Your task to perform on an android device: turn on data saver in the chrome app Image 0: 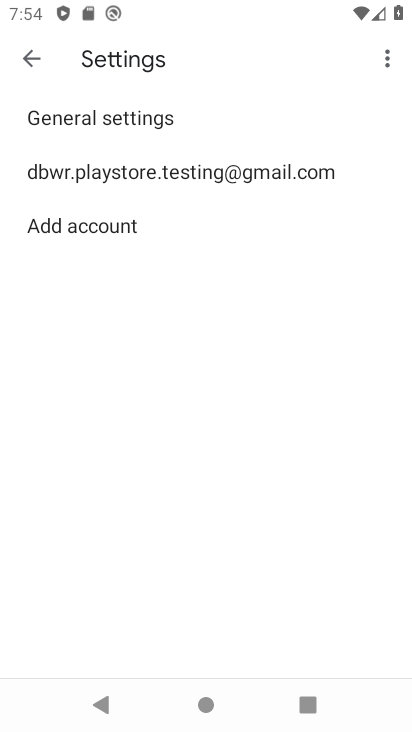
Step 0: click (30, 52)
Your task to perform on an android device: turn on data saver in the chrome app Image 1: 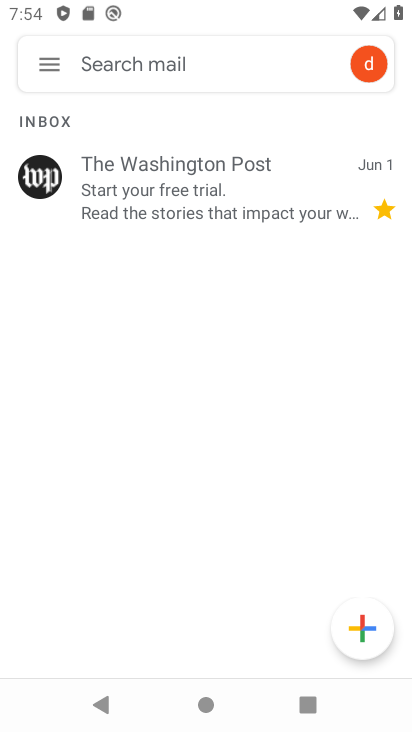
Step 1: press back button
Your task to perform on an android device: turn on data saver in the chrome app Image 2: 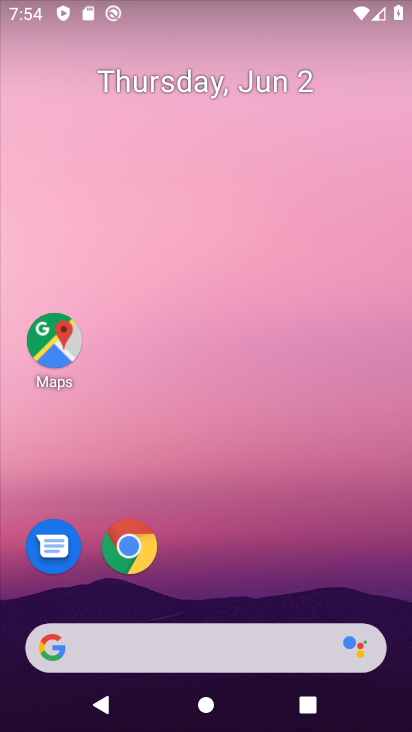
Step 2: drag from (249, 641) to (123, 199)
Your task to perform on an android device: turn on data saver in the chrome app Image 3: 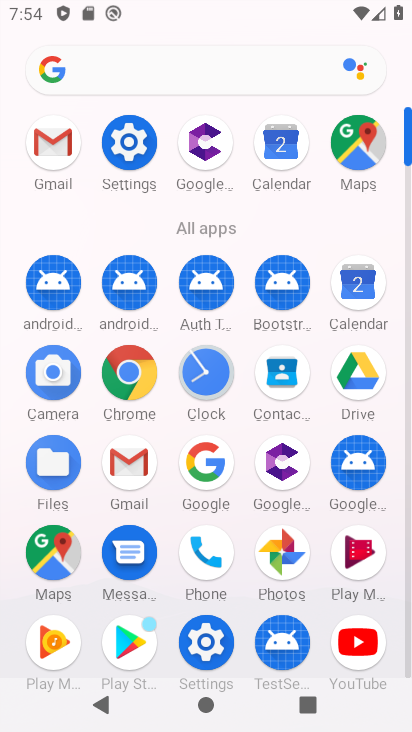
Step 3: click (134, 370)
Your task to perform on an android device: turn on data saver in the chrome app Image 4: 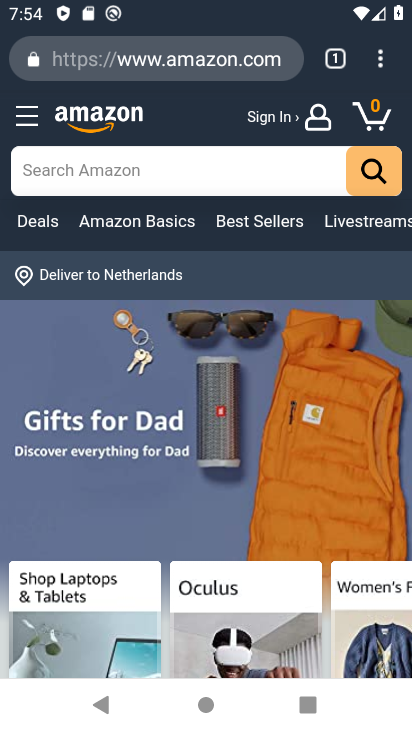
Step 4: drag from (379, 57) to (168, 580)
Your task to perform on an android device: turn on data saver in the chrome app Image 5: 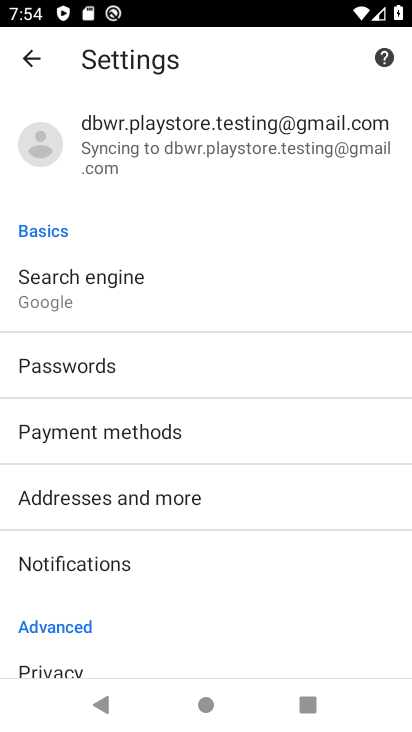
Step 5: drag from (65, 508) to (50, 171)
Your task to perform on an android device: turn on data saver in the chrome app Image 6: 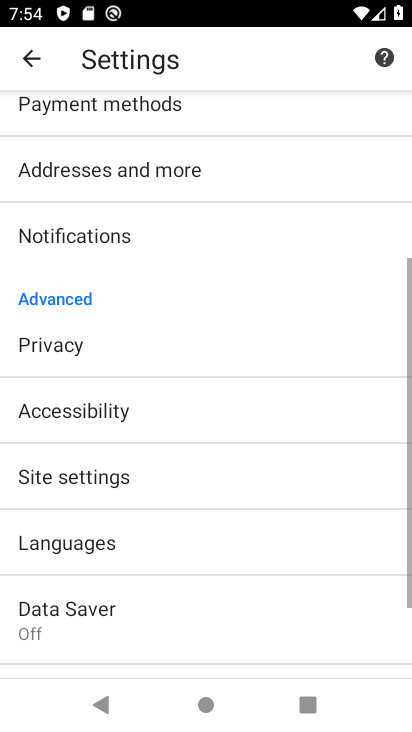
Step 6: drag from (114, 518) to (131, 194)
Your task to perform on an android device: turn on data saver in the chrome app Image 7: 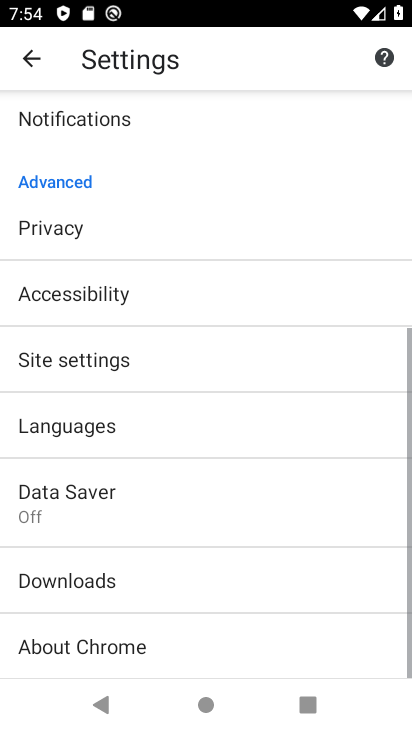
Step 7: drag from (170, 484) to (170, 173)
Your task to perform on an android device: turn on data saver in the chrome app Image 8: 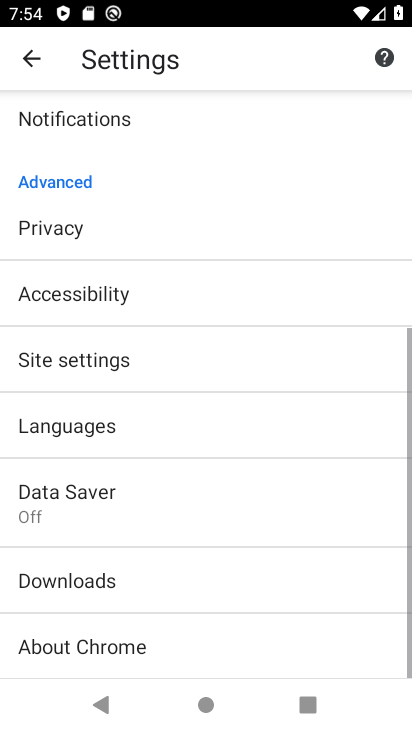
Step 8: click (51, 494)
Your task to perform on an android device: turn on data saver in the chrome app Image 9: 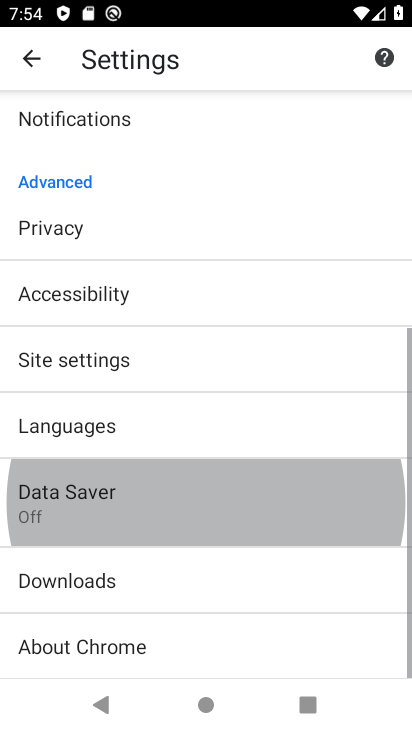
Step 9: click (51, 494)
Your task to perform on an android device: turn on data saver in the chrome app Image 10: 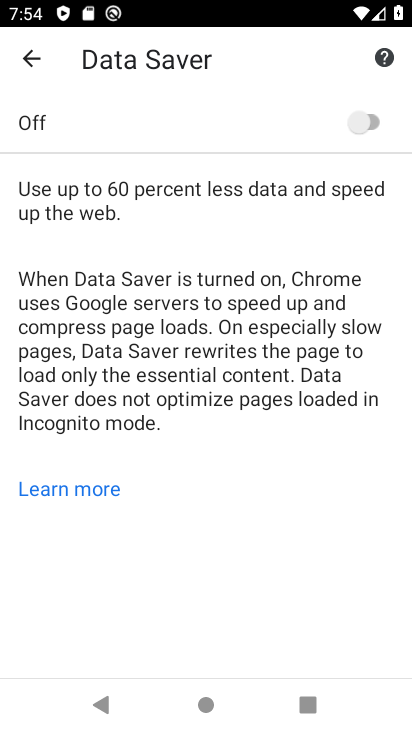
Step 10: click (359, 121)
Your task to perform on an android device: turn on data saver in the chrome app Image 11: 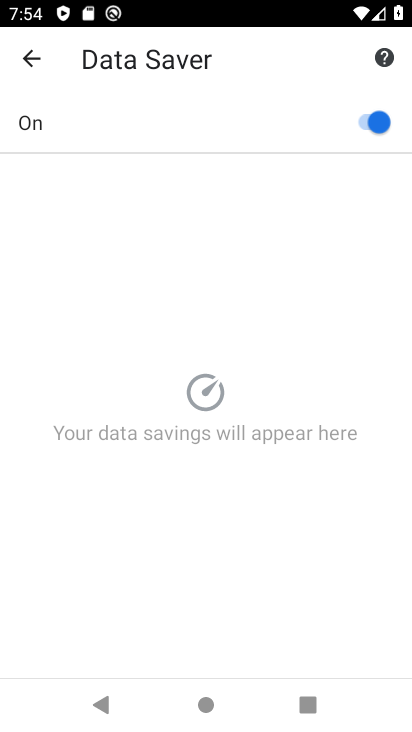
Step 11: task complete